Your task to perform on an android device: find snoozed emails in the gmail app Image 0: 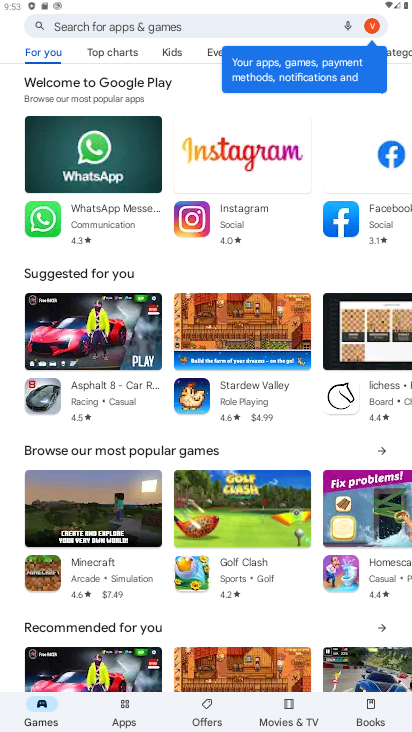
Step 0: press home button
Your task to perform on an android device: find snoozed emails in the gmail app Image 1: 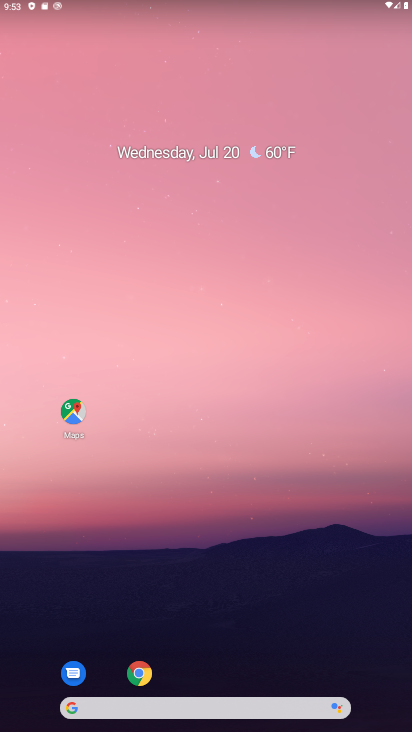
Step 1: drag from (217, 627) to (226, 5)
Your task to perform on an android device: find snoozed emails in the gmail app Image 2: 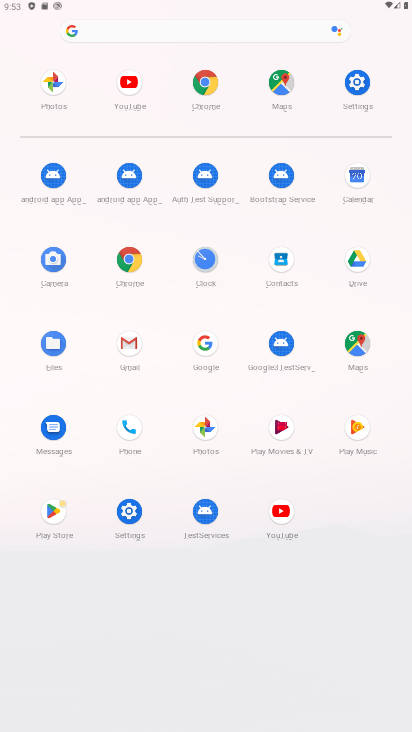
Step 2: click (136, 354)
Your task to perform on an android device: find snoozed emails in the gmail app Image 3: 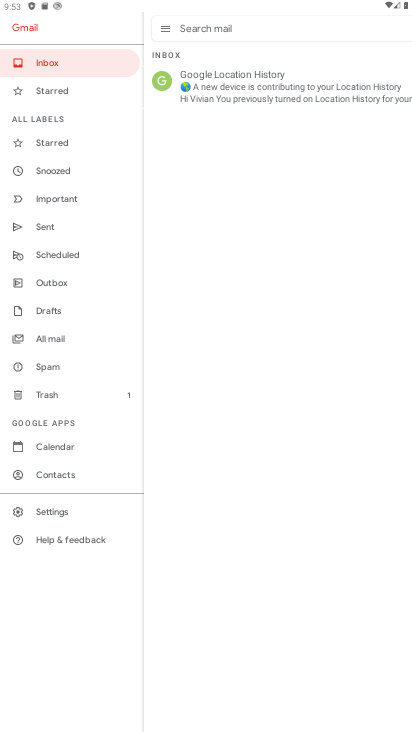
Step 3: click (54, 177)
Your task to perform on an android device: find snoozed emails in the gmail app Image 4: 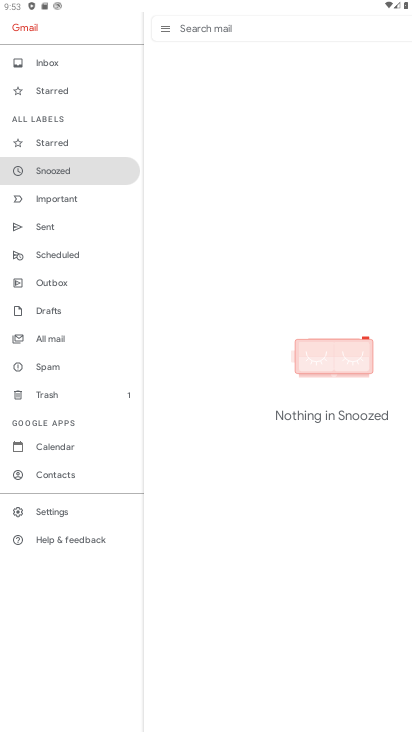
Step 4: task complete